Your task to perform on an android device: Search for razer blade on newegg, select the first entry, and add it to the cart. Image 0: 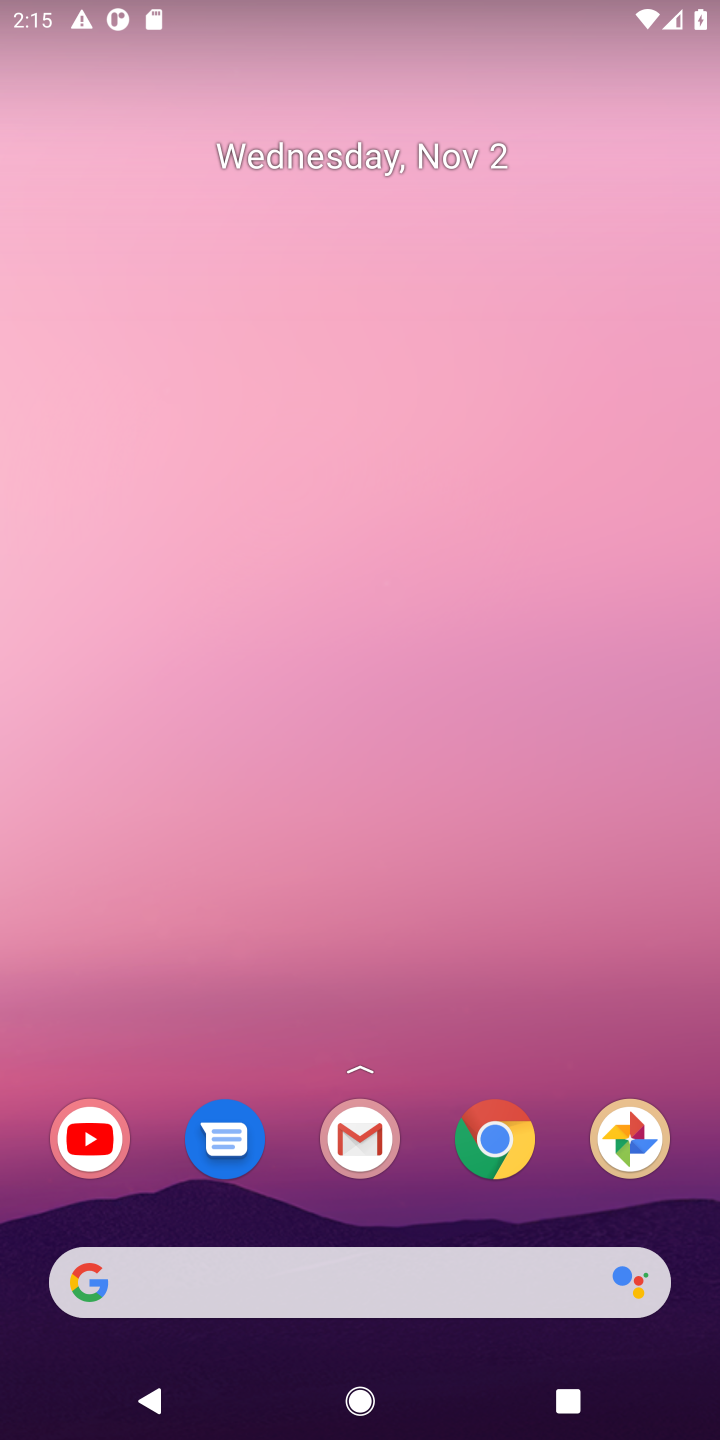
Step 0: press home button
Your task to perform on an android device: Search for razer blade on newegg, select the first entry, and add it to the cart. Image 1: 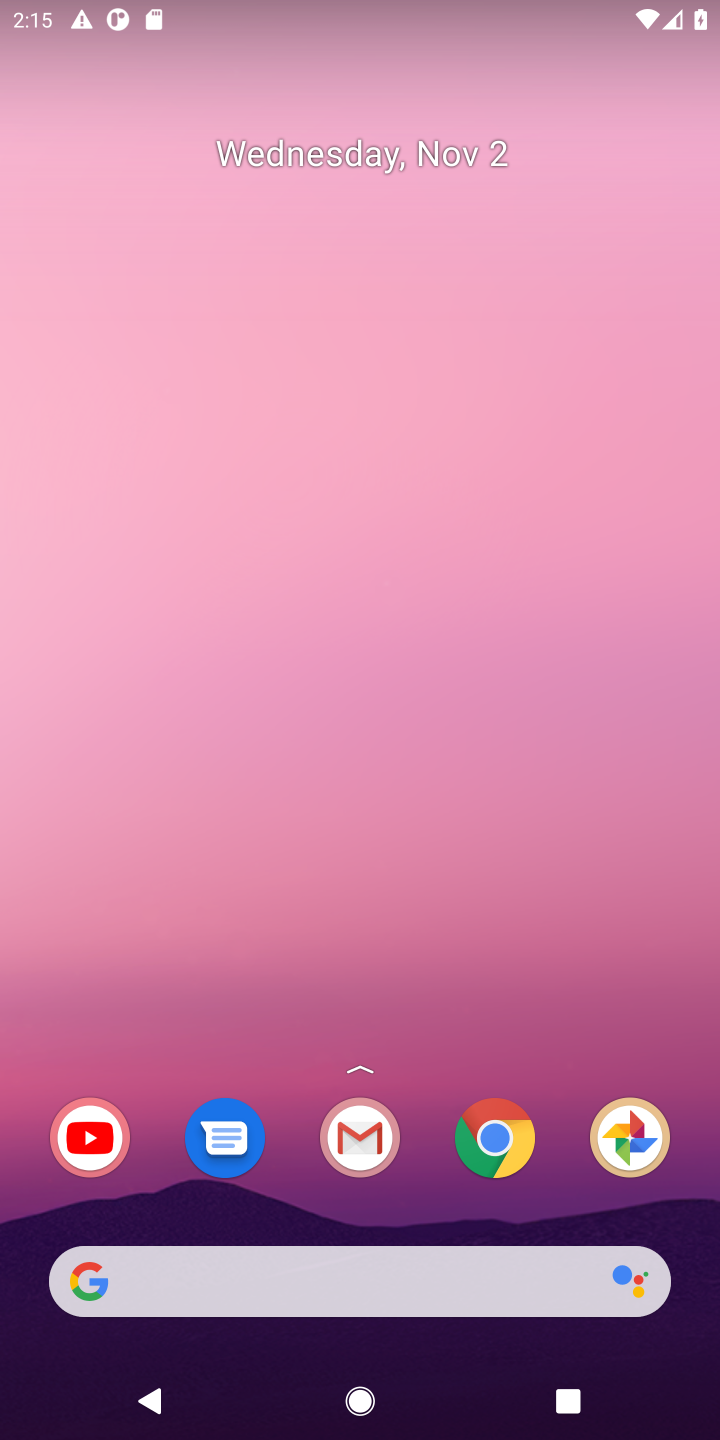
Step 1: click (141, 1269)
Your task to perform on an android device: Search for razer blade on newegg, select the first entry, and add it to the cart. Image 2: 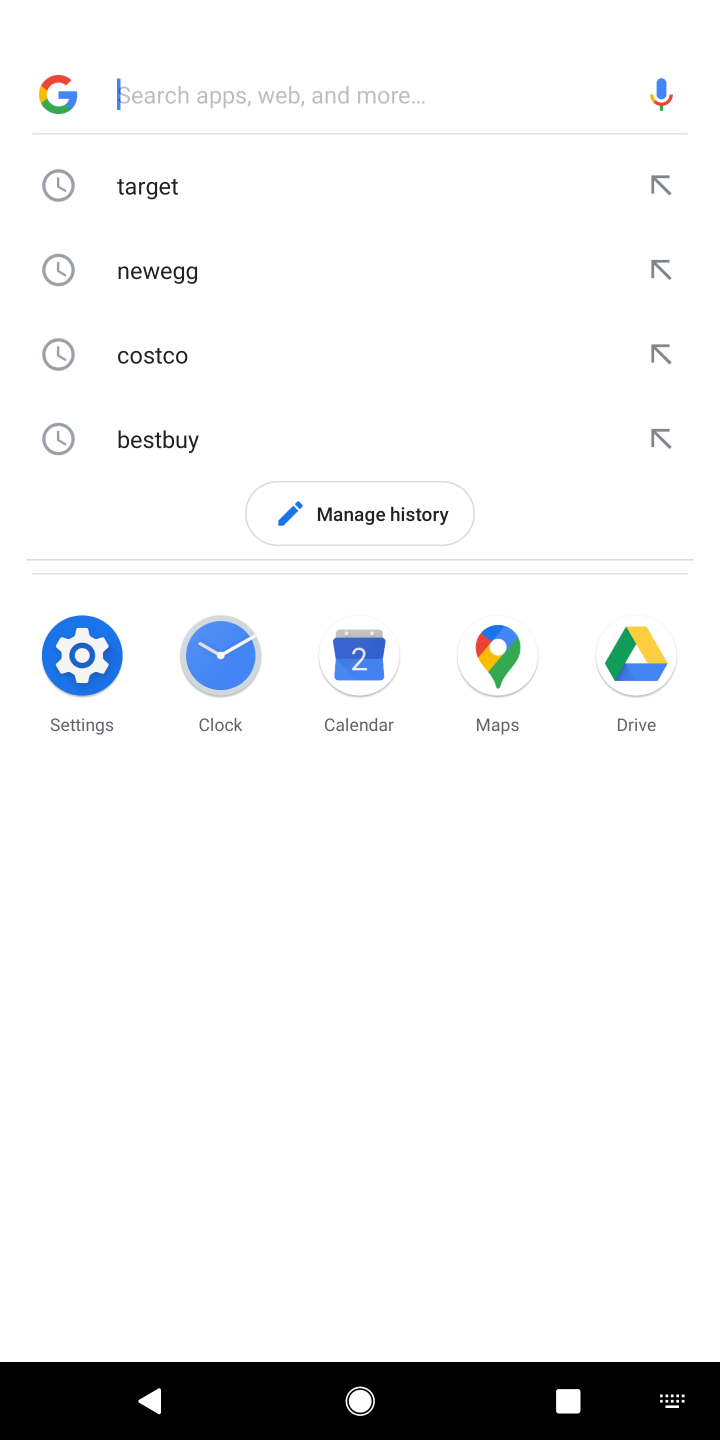
Step 2: type "newegg"
Your task to perform on an android device: Search for razer blade on newegg, select the first entry, and add it to the cart. Image 3: 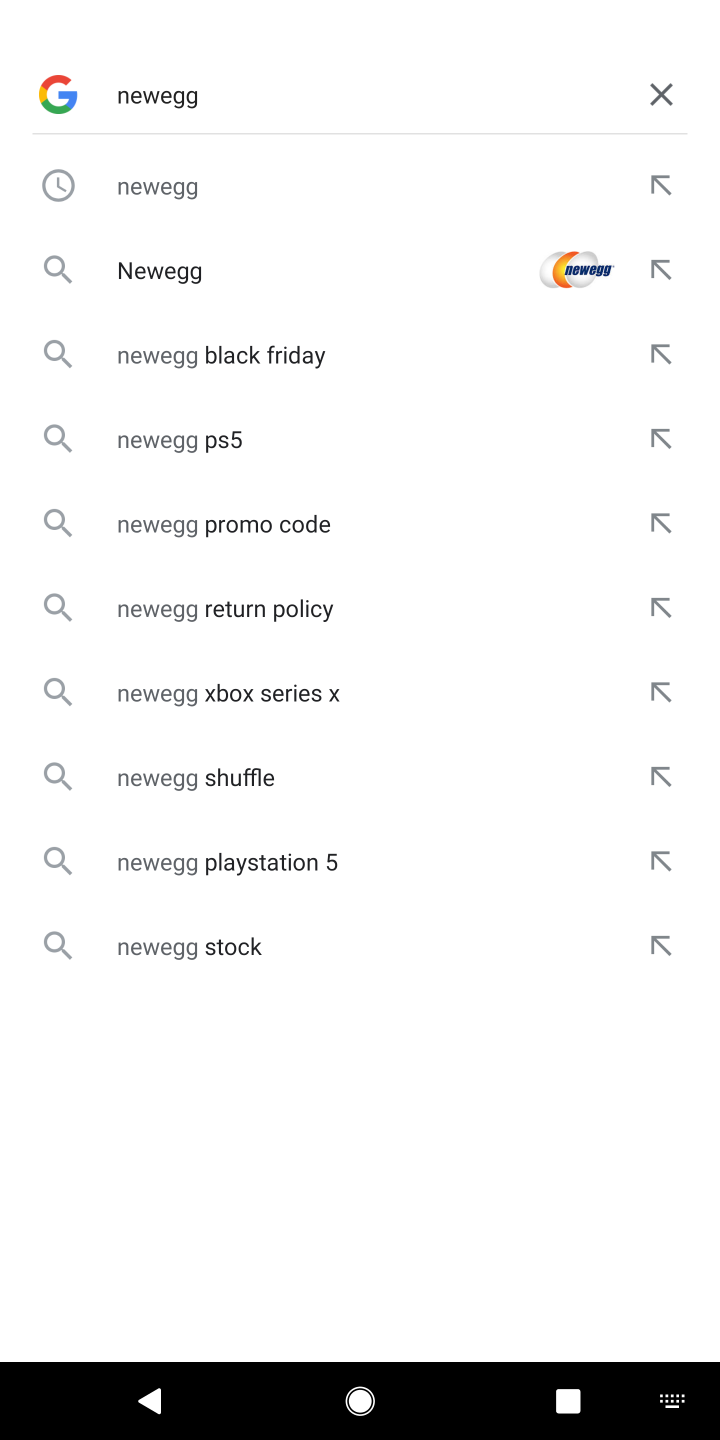
Step 3: press enter
Your task to perform on an android device: Search for razer blade on newegg, select the first entry, and add it to the cart. Image 4: 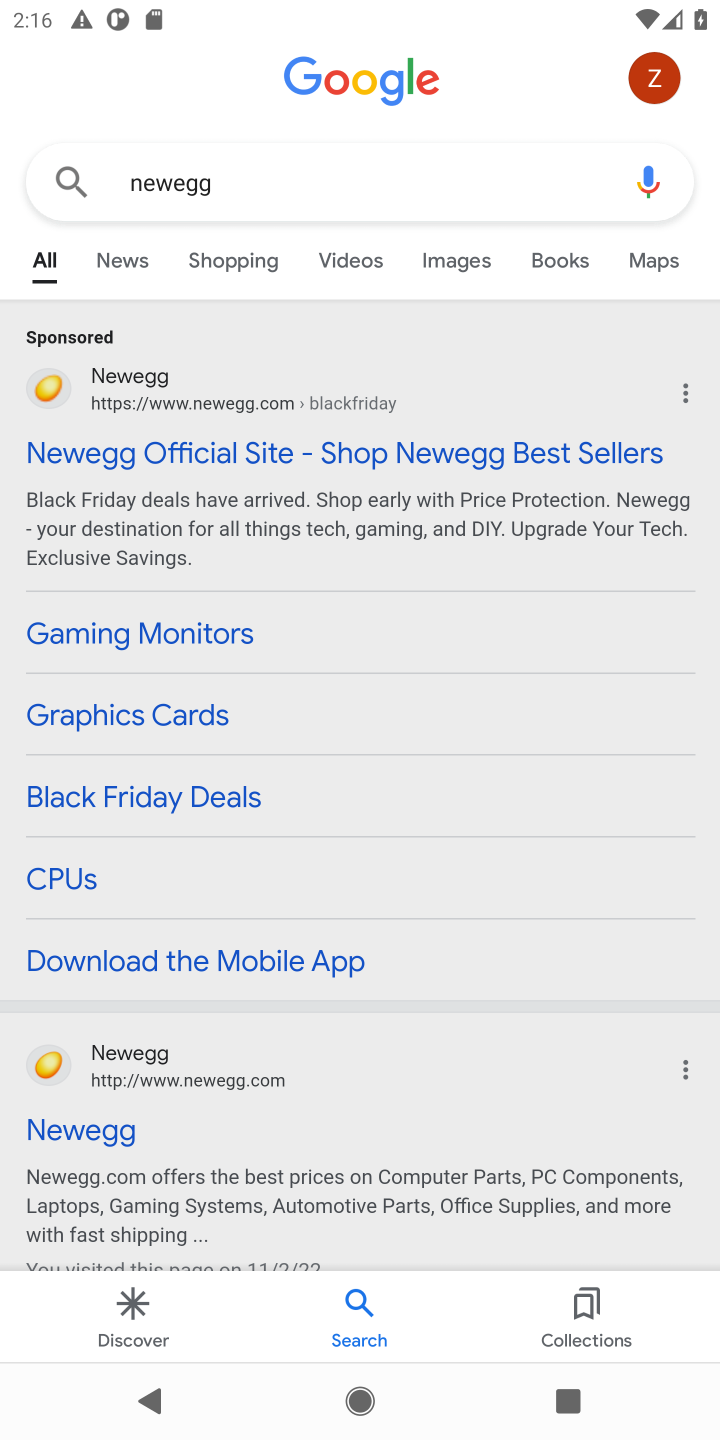
Step 4: click (547, 448)
Your task to perform on an android device: Search for razer blade on newegg, select the first entry, and add it to the cart. Image 5: 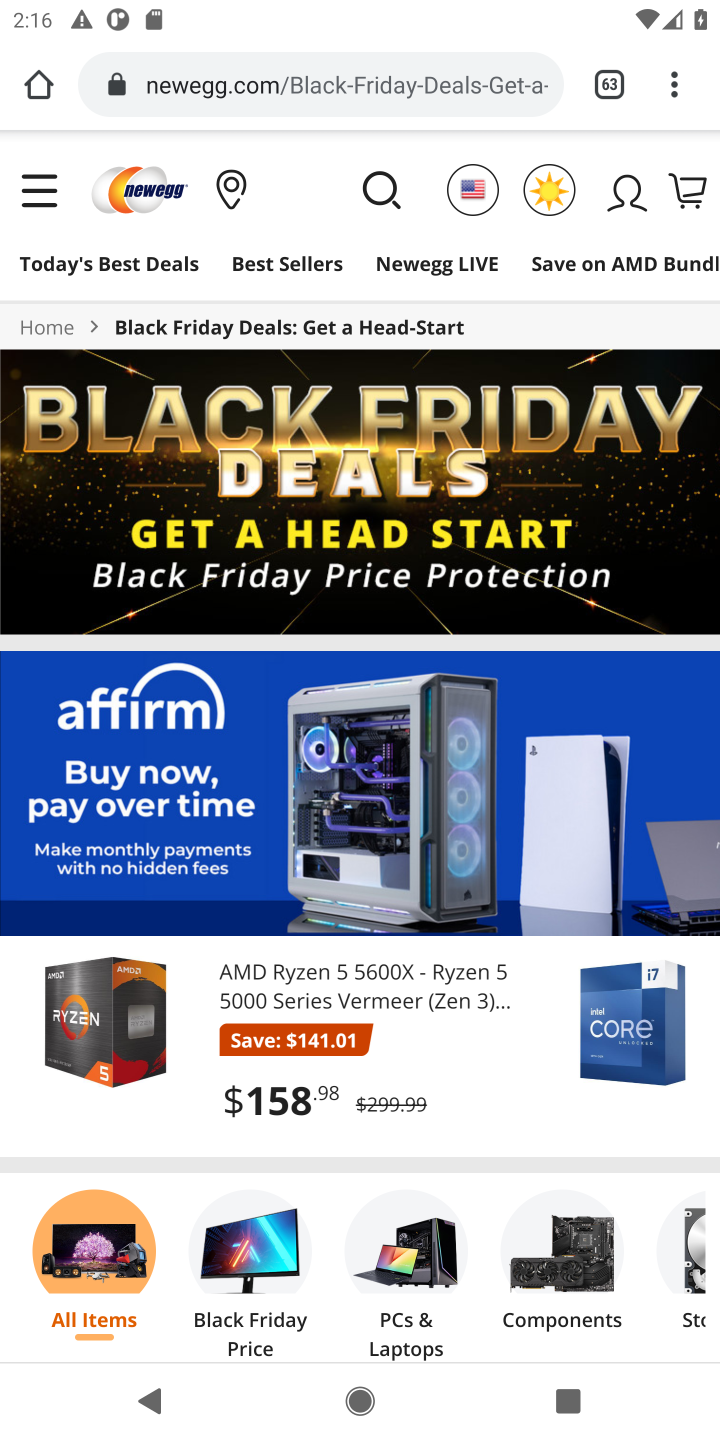
Step 5: click (381, 194)
Your task to perform on an android device: Search for razer blade on newegg, select the first entry, and add it to the cart. Image 6: 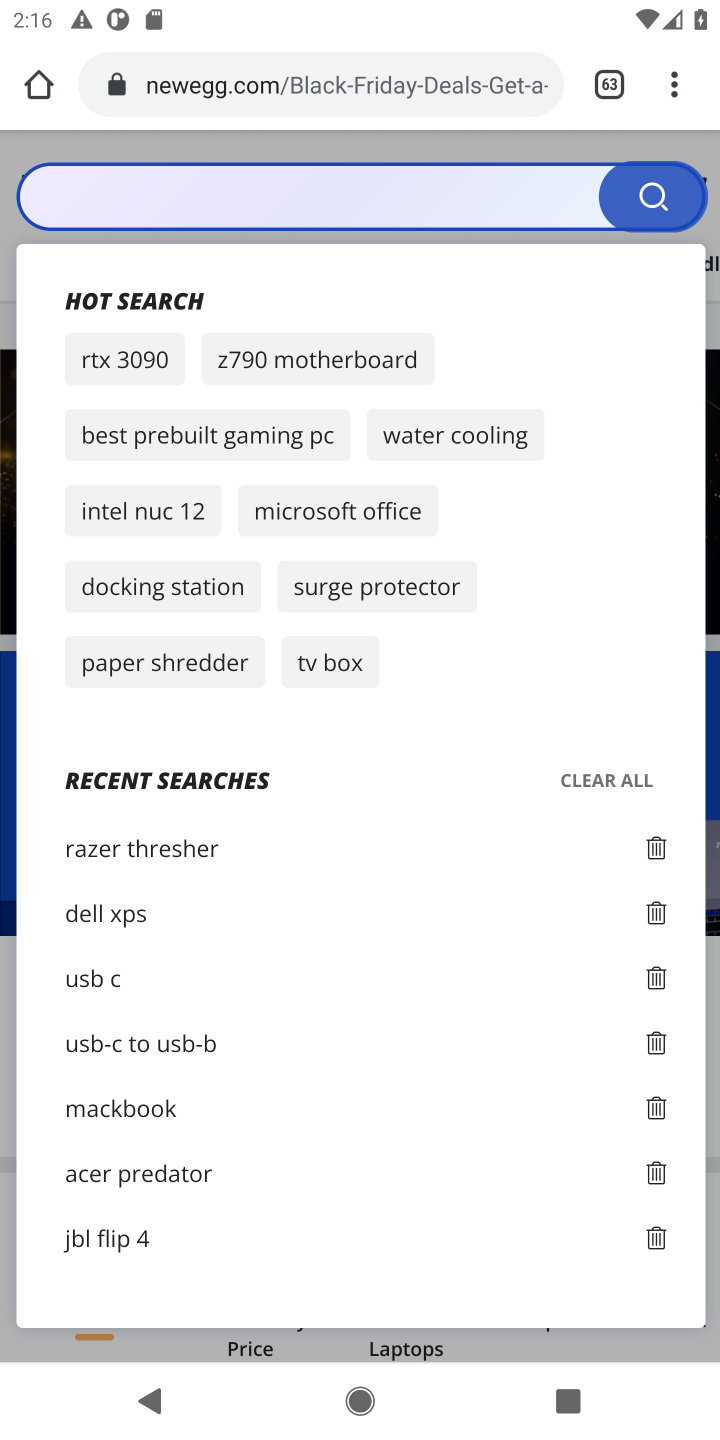
Step 6: click (381, 194)
Your task to perform on an android device: Search for razer blade on newegg, select the first entry, and add it to the cart. Image 7: 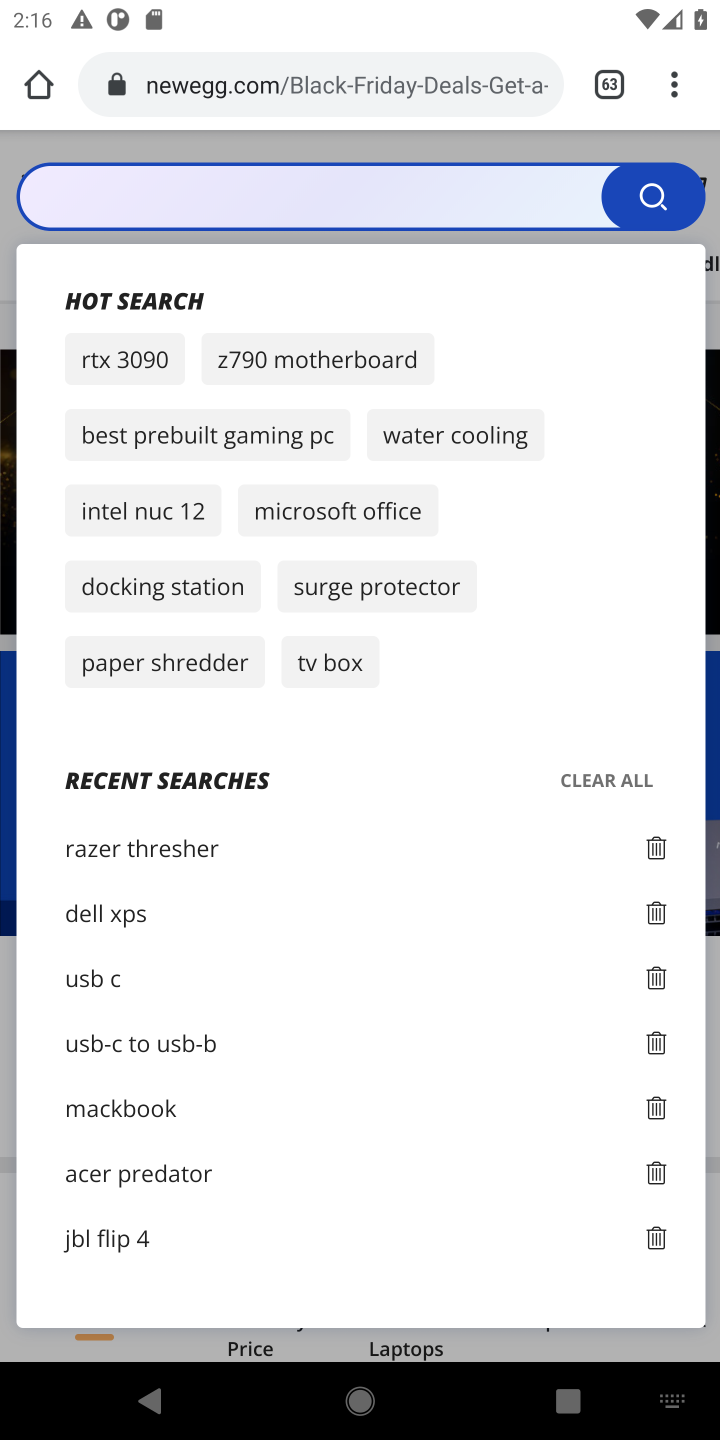
Step 7: type "razer blade"
Your task to perform on an android device: Search for razer blade on newegg, select the first entry, and add it to the cart. Image 8: 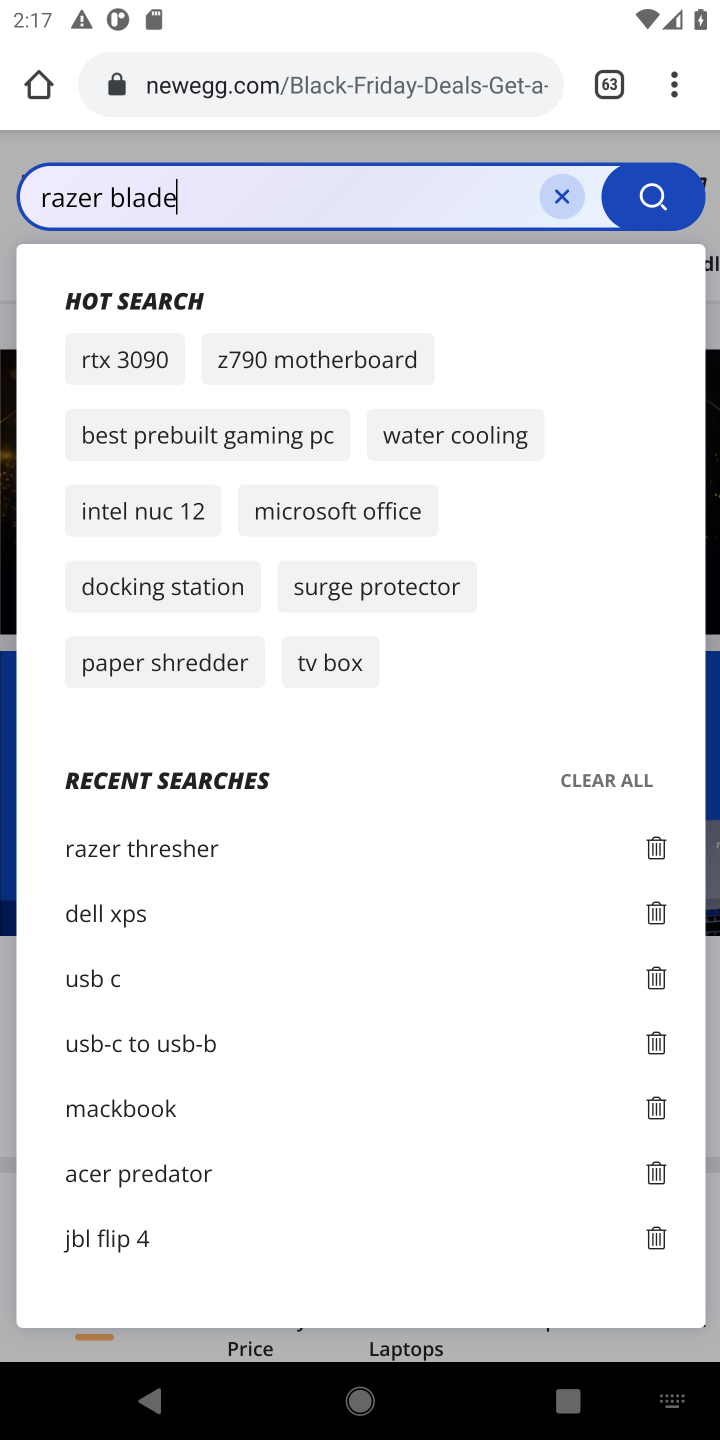
Step 8: press enter
Your task to perform on an android device: Search for razer blade on newegg, select the first entry, and add it to the cart. Image 9: 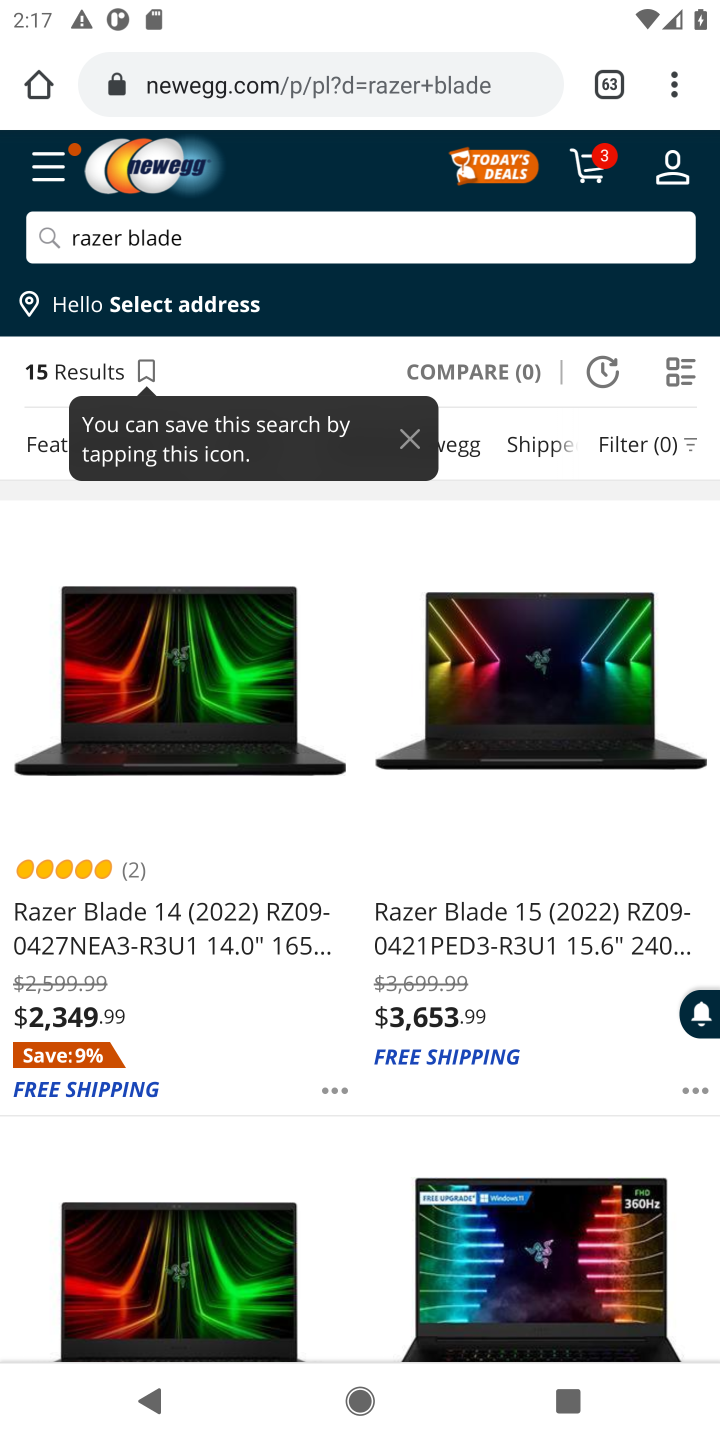
Step 9: click (103, 936)
Your task to perform on an android device: Search for razer blade on newegg, select the first entry, and add it to the cart. Image 10: 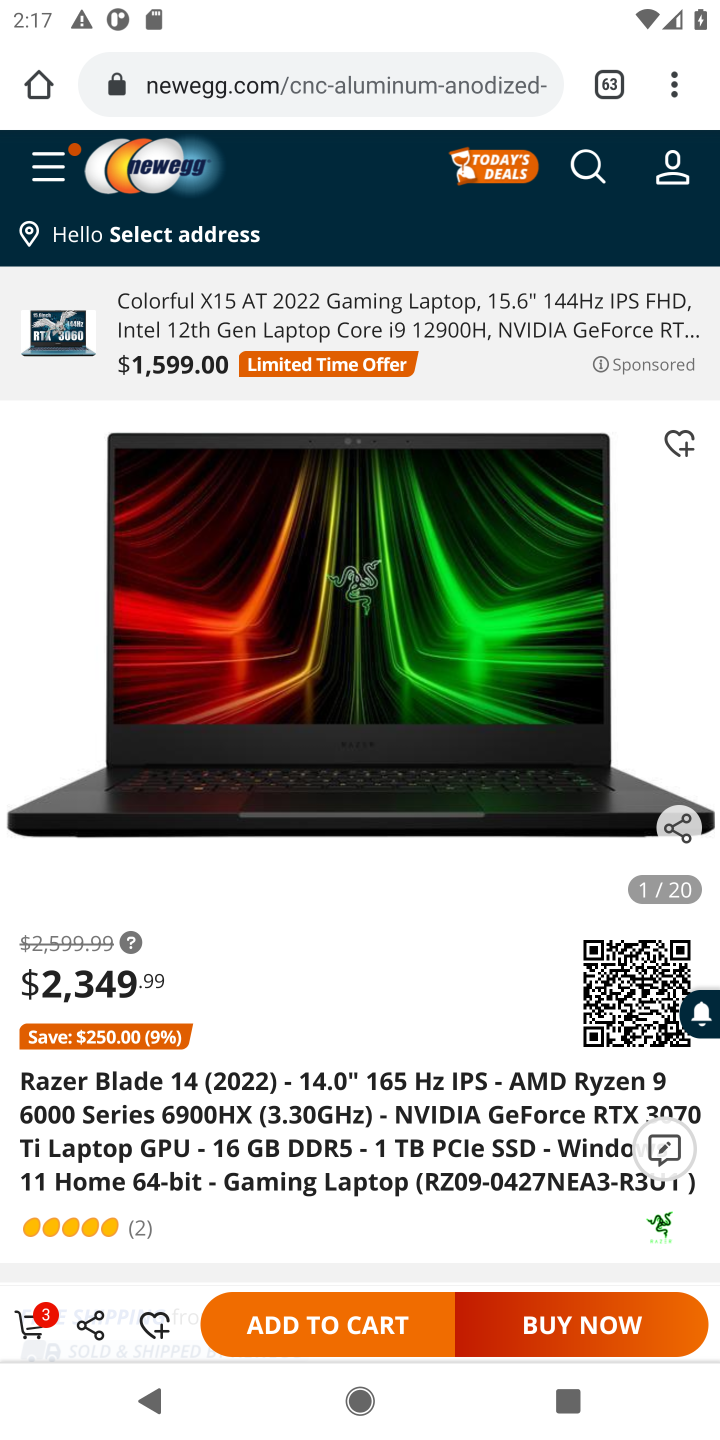
Step 10: drag from (334, 1090) to (351, 839)
Your task to perform on an android device: Search for razer blade on newegg, select the first entry, and add it to the cart. Image 11: 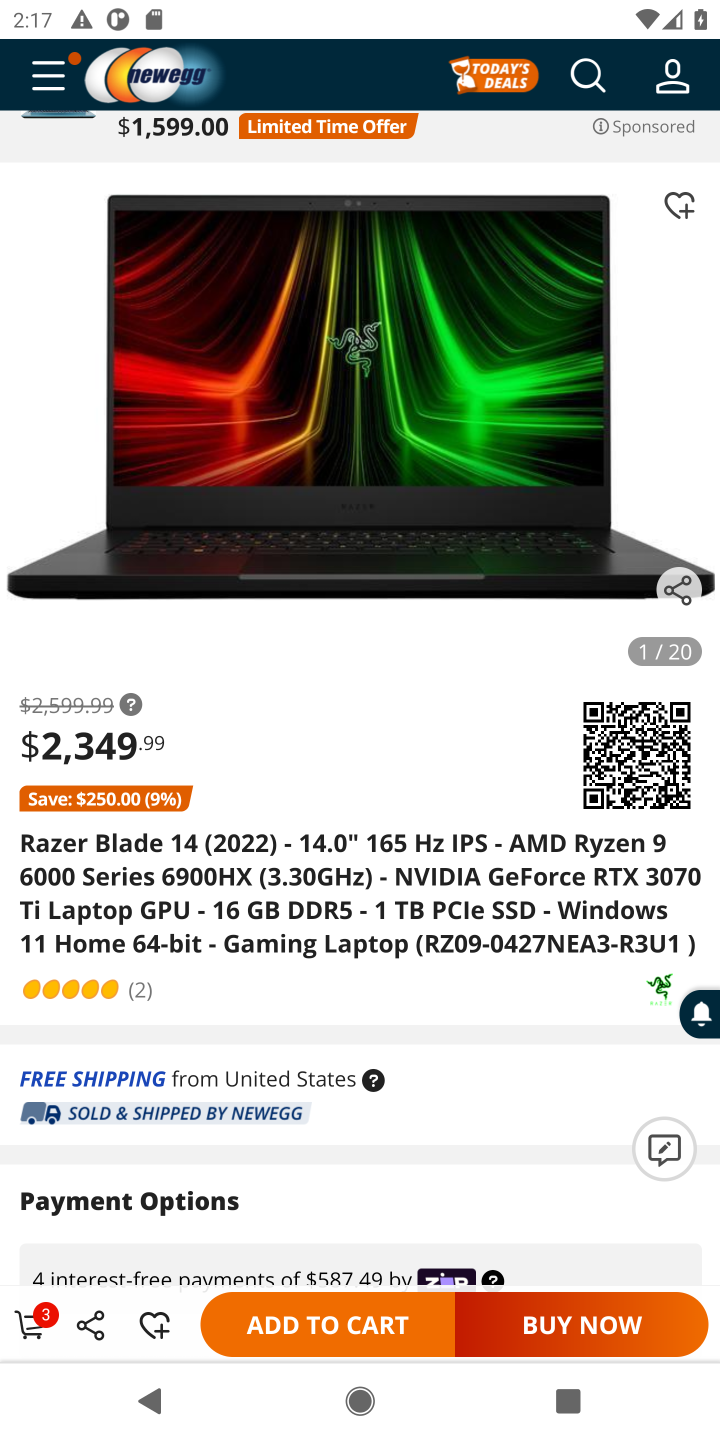
Step 11: click (330, 1331)
Your task to perform on an android device: Search for razer blade on newegg, select the first entry, and add it to the cart. Image 12: 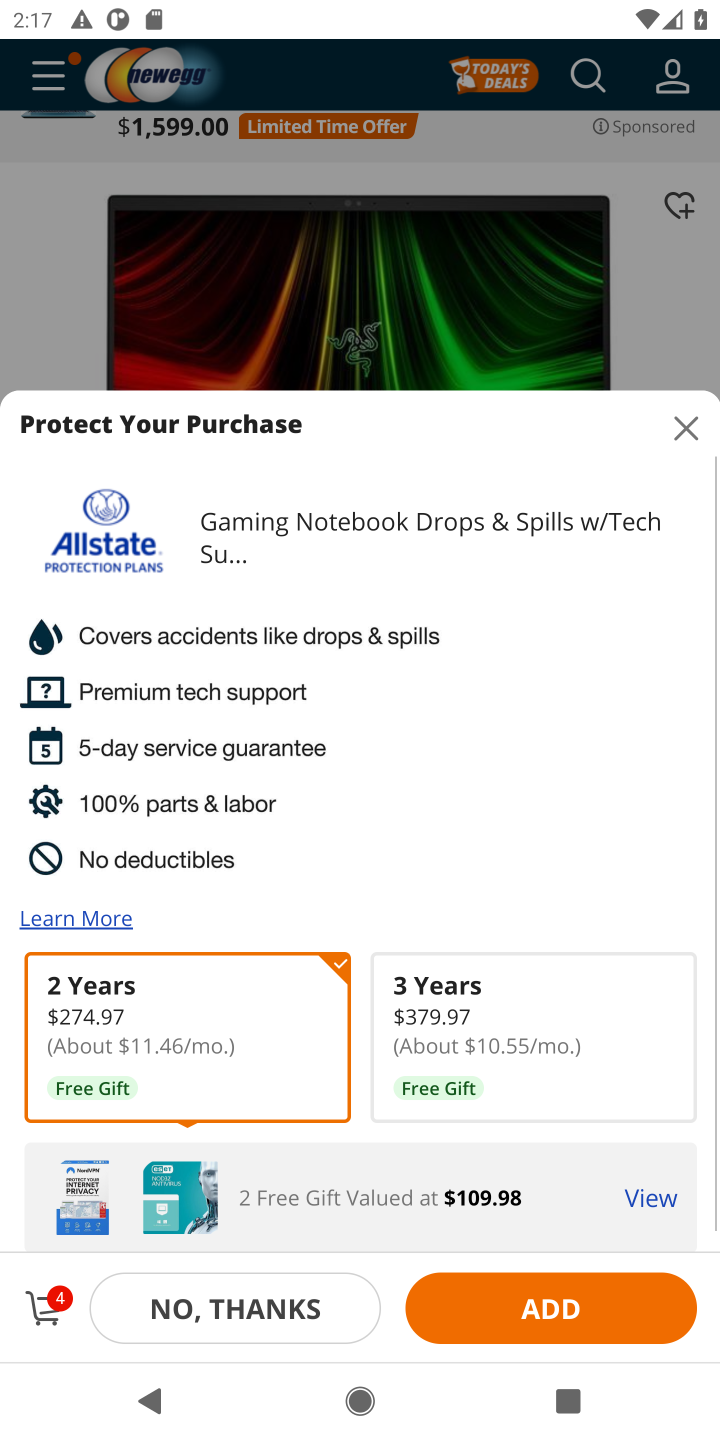
Step 12: click (245, 1316)
Your task to perform on an android device: Search for razer blade on newegg, select the first entry, and add it to the cart. Image 13: 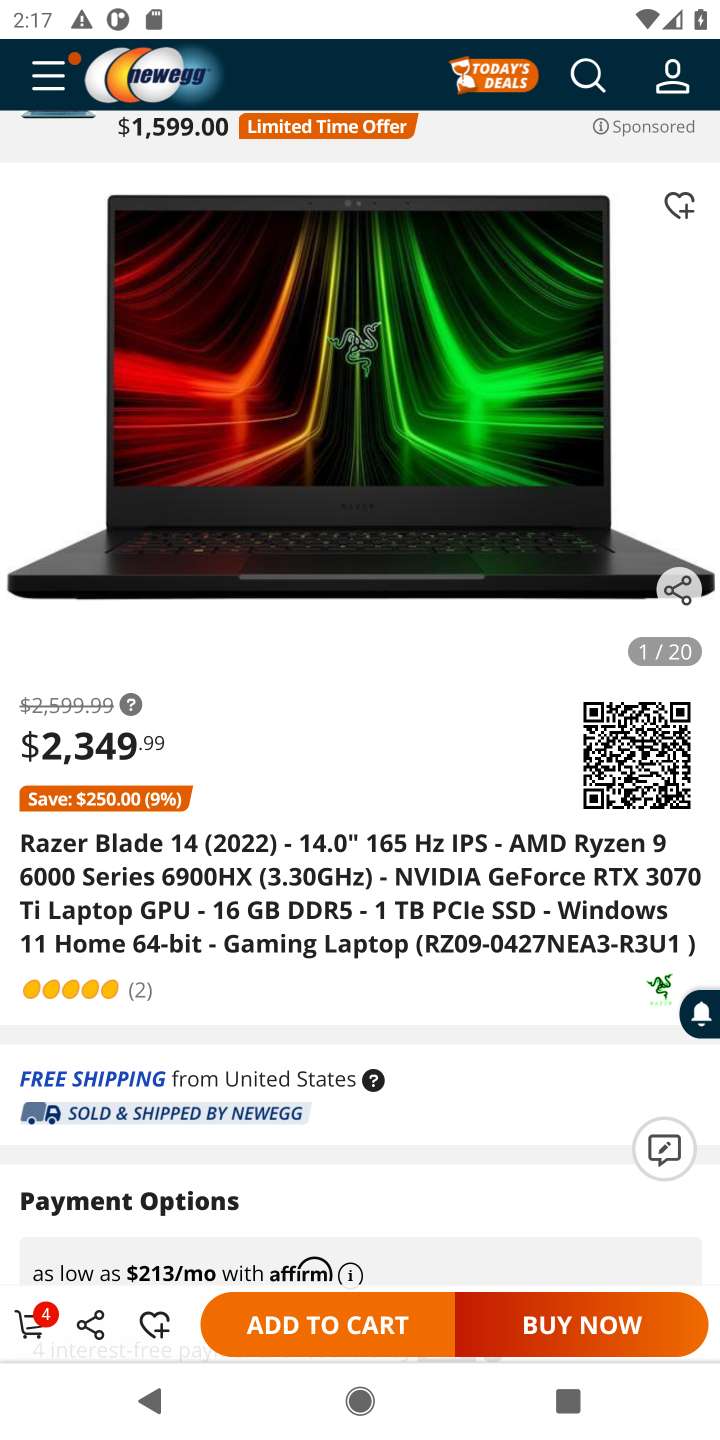
Step 13: task complete